Your task to perform on an android device: Do I have any events today? Image 0: 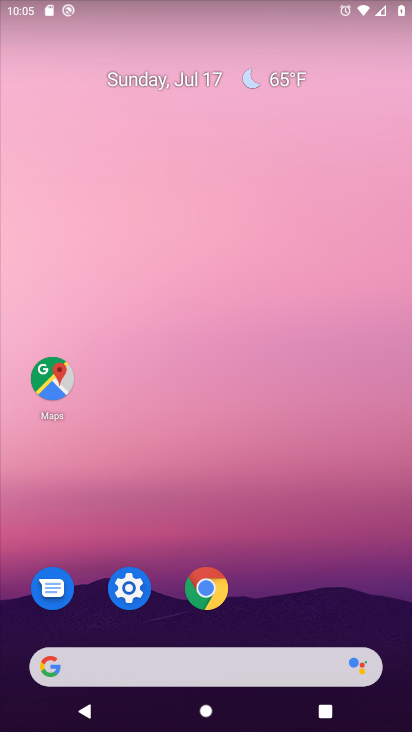
Step 0: click (175, 253)
Your task to perform on an android device: Do I have any events today? Image 1: 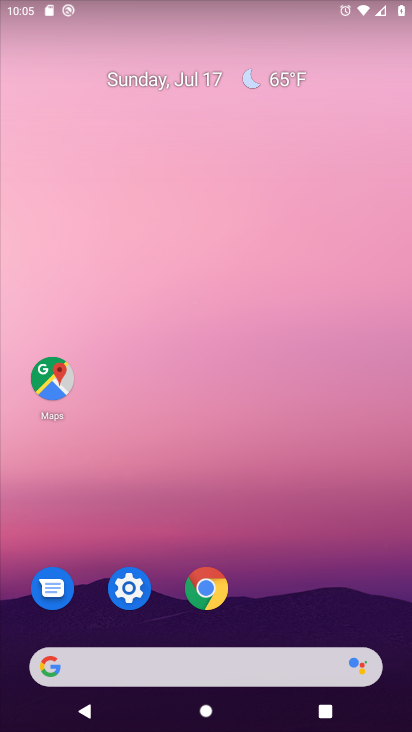
Step 1: drag from (241, 564) to (186, 55)
Your task to perform on an android device: Do I have any events today? Image 2: 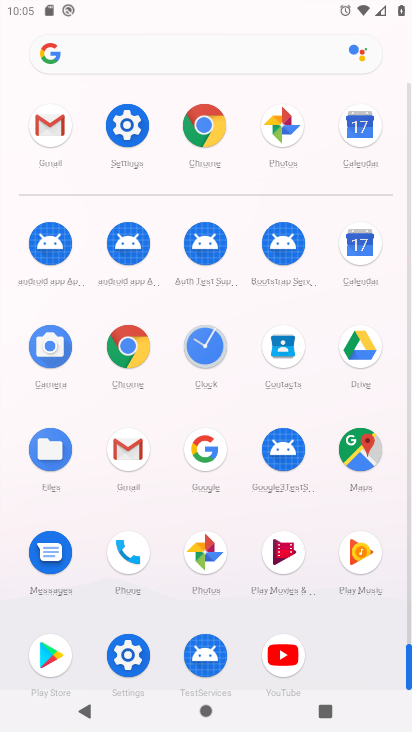
Step 2: drag from (199, 602) to (163, 153)
Your task to perform on an android device: Do I have any events today? Image 3: 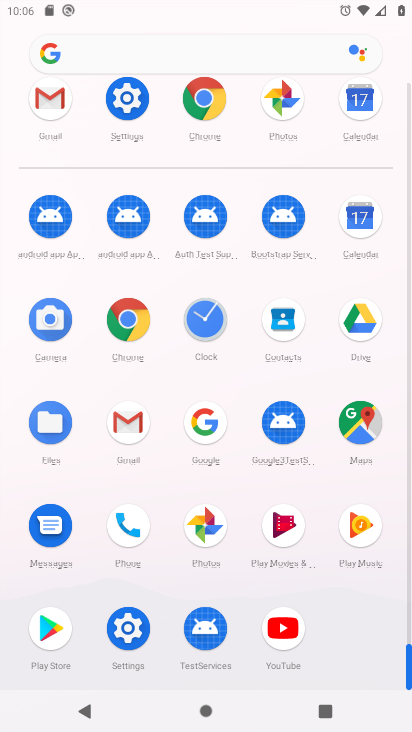
Step 3: click (361, 106)
Your task to perform on an android device: Do I have any events today? Image 4: 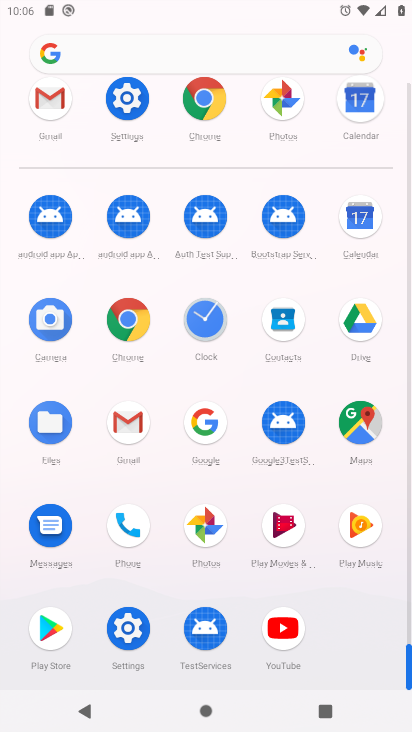
Step 4: click (361, 106)
Your task to perform on an android device: Do I have any events today? Image 5: 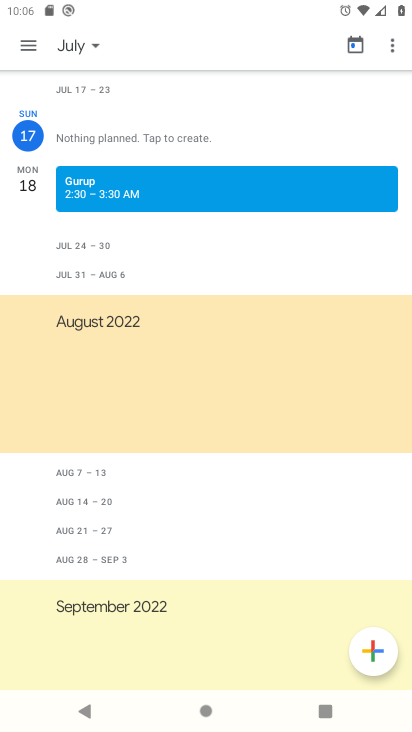
Step 5: click (98, 45)
Your task to perform on an android device: Do I have any events today? Image 6: 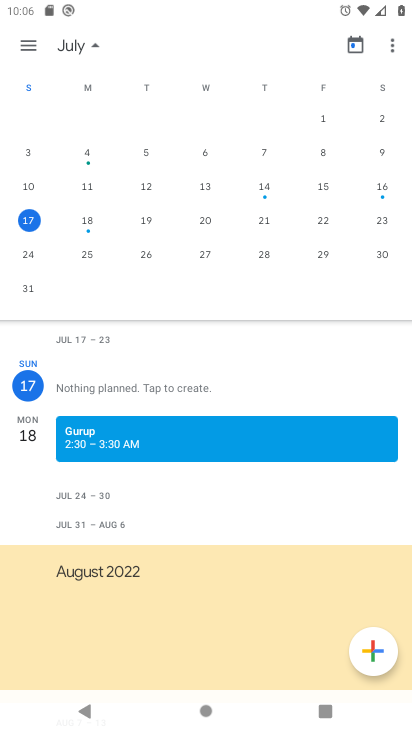
Step 6: click (87, 218)
Your task to perform on an android device: Do I have any events today? Image 7: 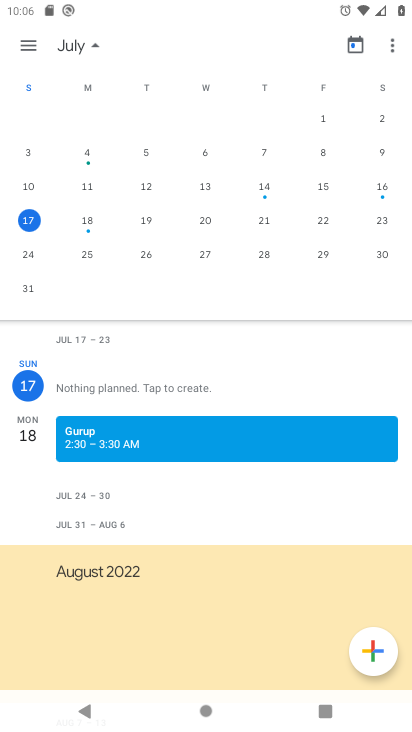
Step 7: click (87, 218)
Your task to perform on an android device: Do I have any events today? Image 8: 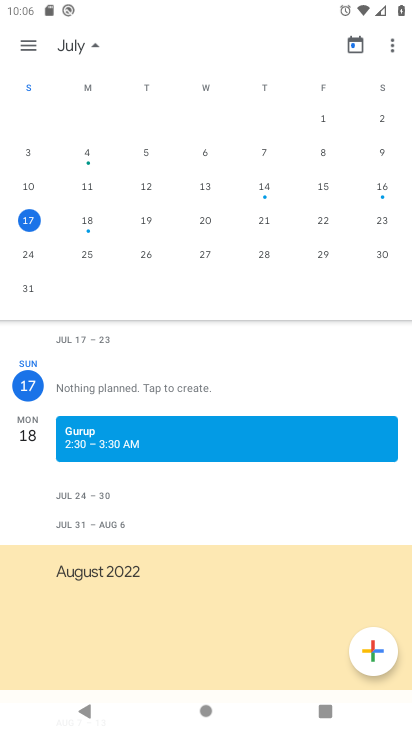
Step 8: click (86, 219)
Your task to perform on an android device: Do I have any events today? Image 9: 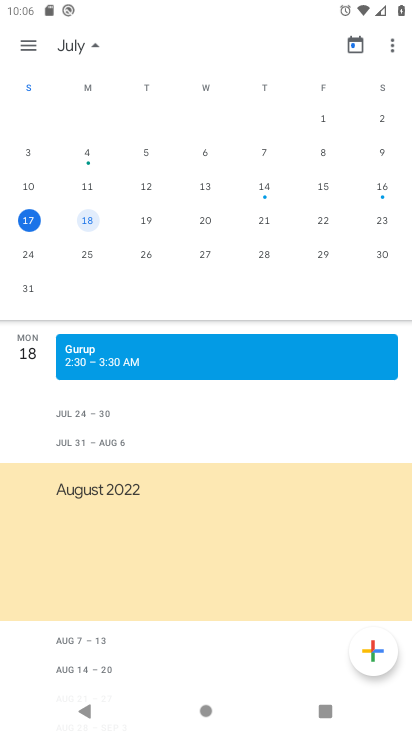
Step 9: task complete